Your task to perform on an android device: When is my next appointment? Image 0: 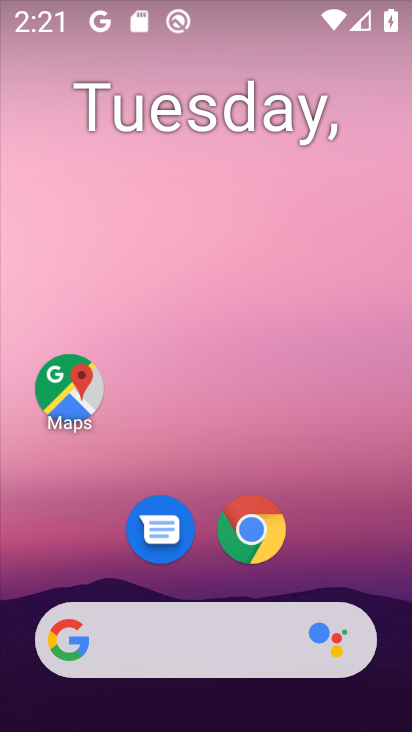
Step 0: drag from (377, 572) to (327, 75)
Your task to perform on an android device: When is my next appointment? Image 1: 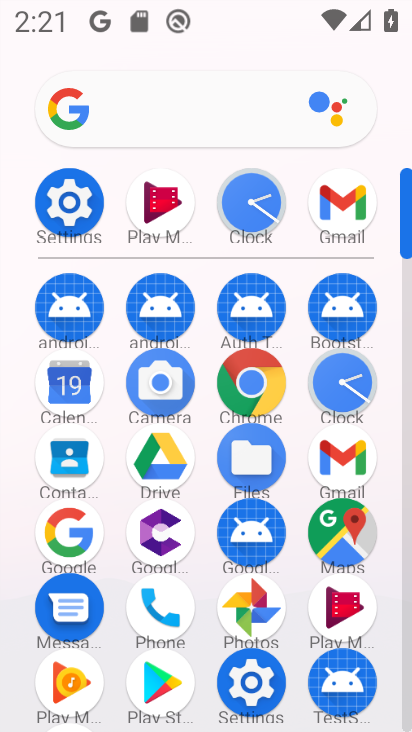
Step 1: click (64, 392)
Your task to perform on an android device: When is my next appointment? Image 2: 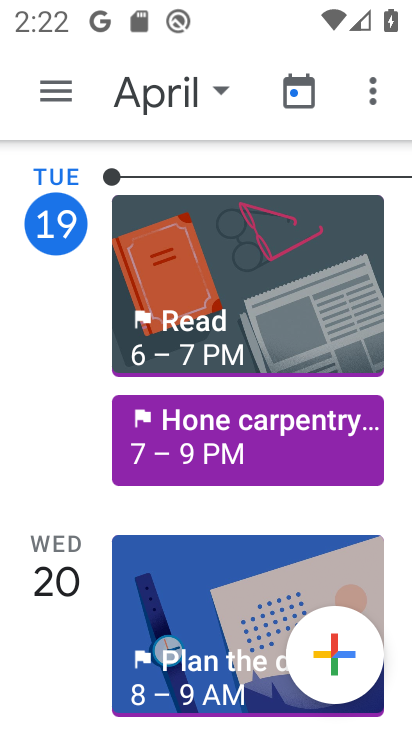
Step 2: click (375, 96)
Your task to perform on an android device: When is my next appointment? Image 3: 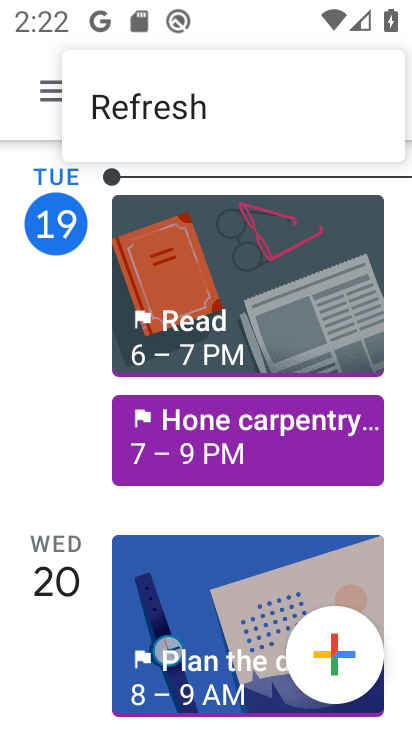
Step 3: click (19, 115)
Your task to perform on an android device: When is my next appointment? Image 4: 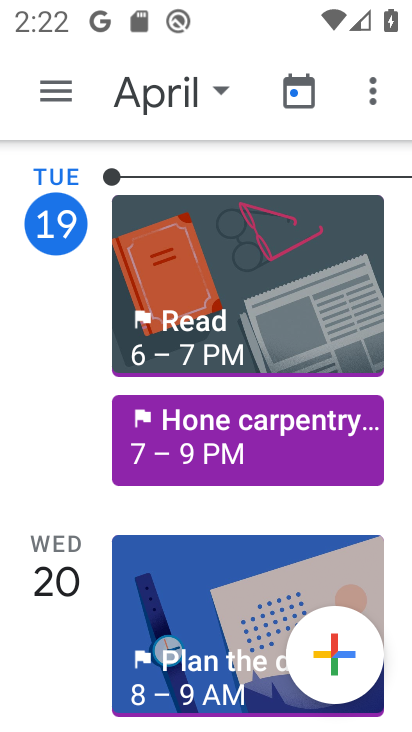
Step 4: click (64, 83)
Your task to perform on an android device: When is my next appointment? Image 5: 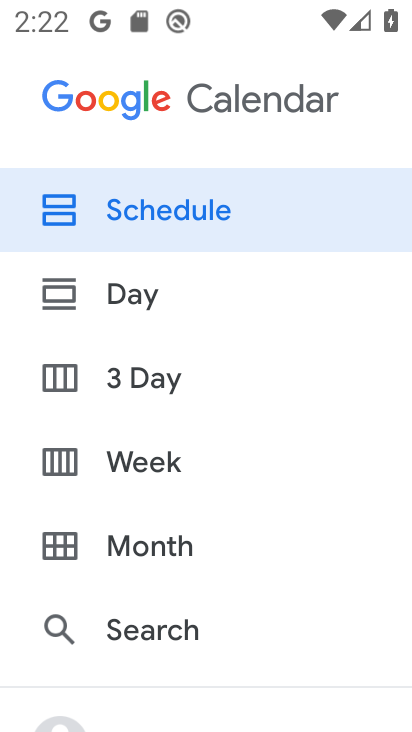
Step 5: drag from (265, 540) to (262, 292)
Your task to perform on an android device: When is my next appointment? Image 6: 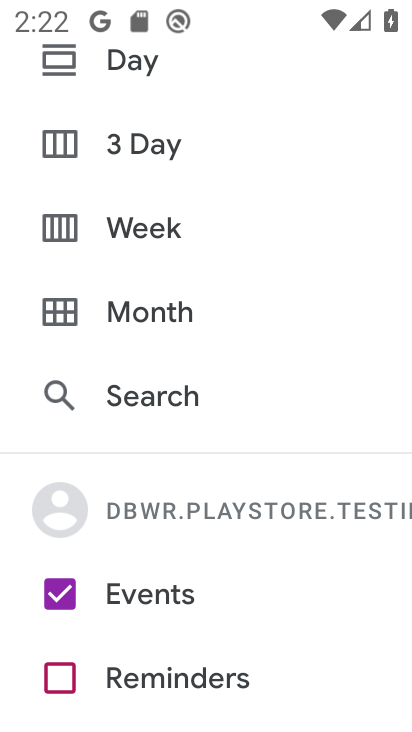
Step 6: drag from (307, 610) to (318, 286)
Your task to perform on an android device: When is my next appointment? Image 7: 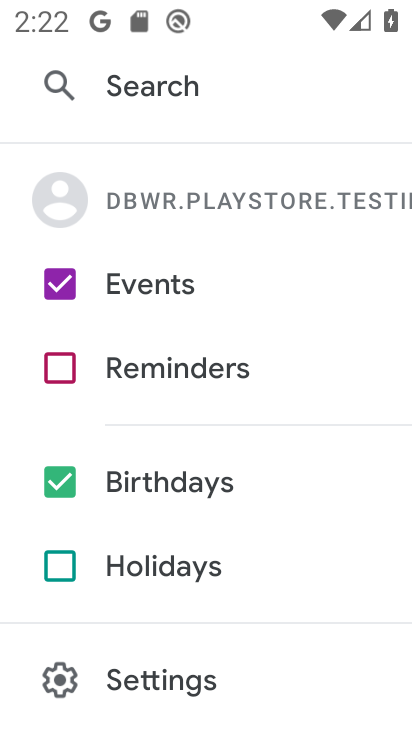
Step 7: drag from (314, 475) to (312, 222)
Your task to perform on an android device: When is my next appointment? Image 8: 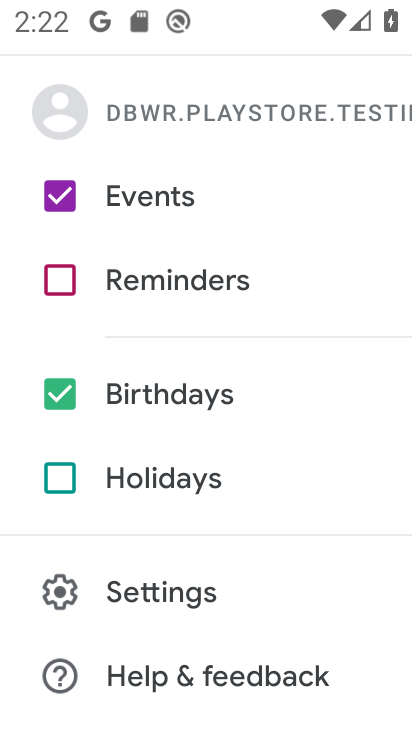
Step 8: drag from (326, 494) to (337, 287)
Your task to perform on an android device: When is my next appointment? Image 9: 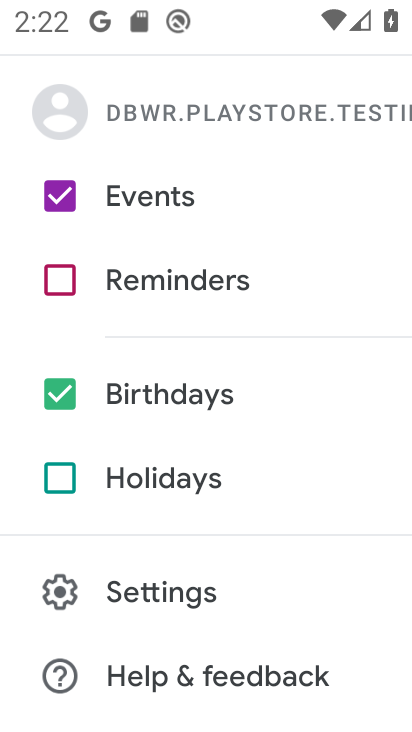
Step 9: drag from (337, 606) to (298, 151)
Your task to perform on an android device: When is my next appointment? Image 10: 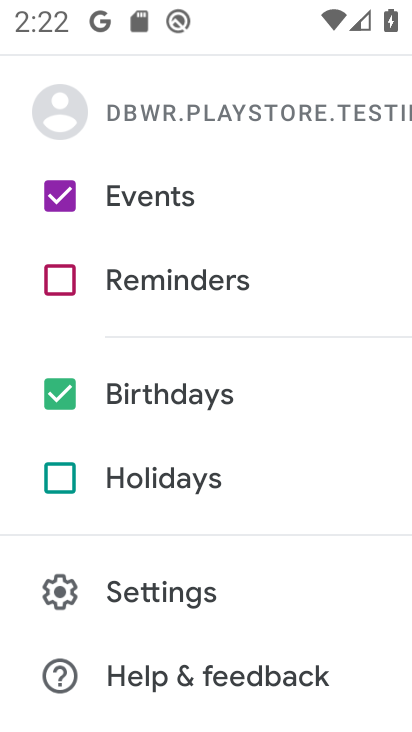
Step 10: drag from (355, 627) to (326, 198)
Your task to perform on an android device: When is my next appointment? Image 11: 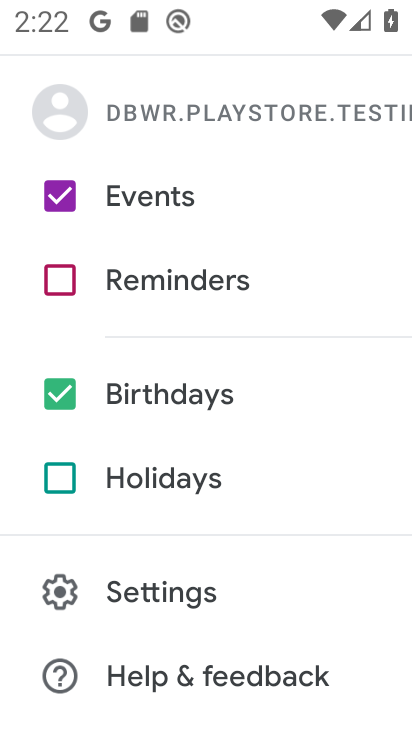
Step 11: drag from (398, 534) to (395, 258)
Your task to perform on an android device: When is my next appointment? Image 12: 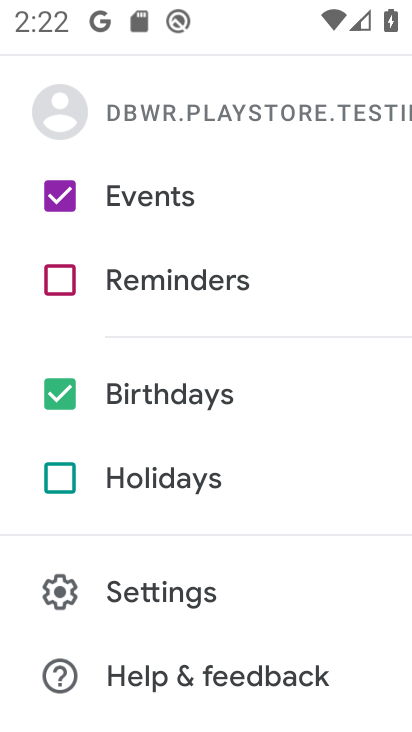
Step 12: click (357, 200)
Your task to perform on an android device: When is my next appointment? Image 13: 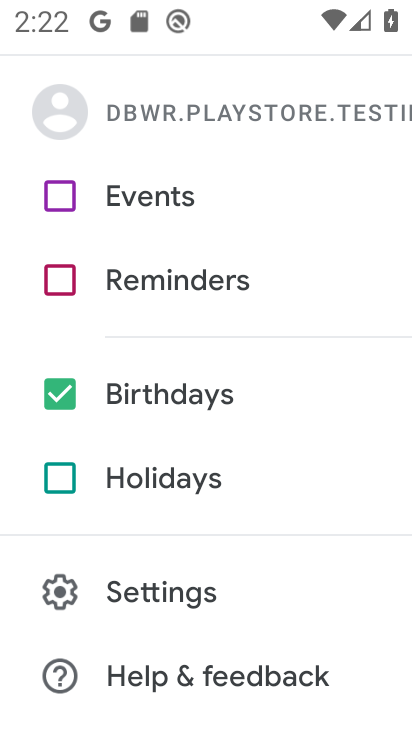
Step 13: task complete